Your task to perform on an android device: uninstall "Roku - Official Remote Control" Image 0: 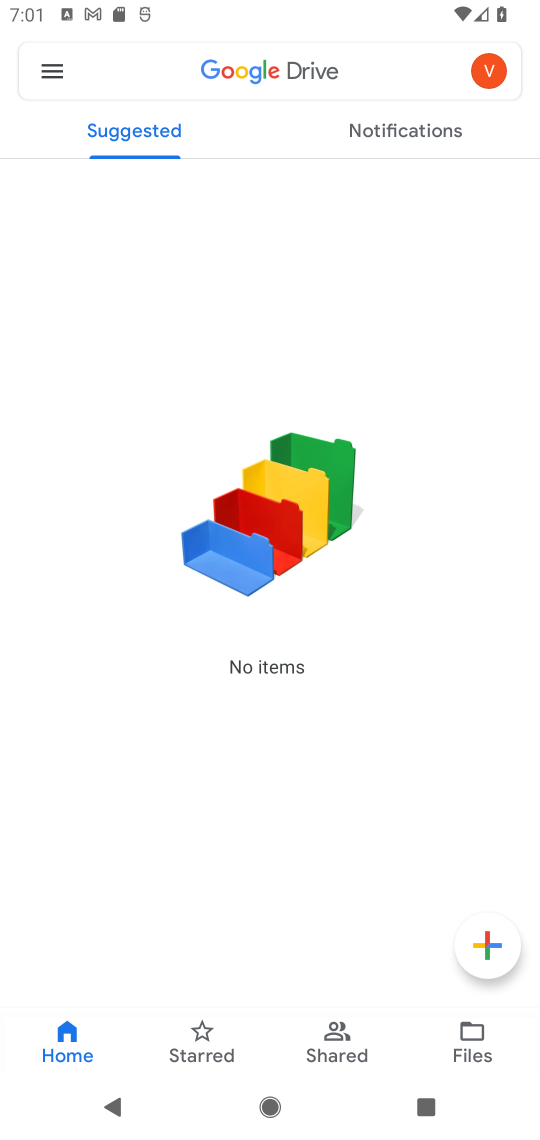
Step 0: press back button
Your task to perform on an android device: uninstall "Roku - Official Remote Control" Image 1: 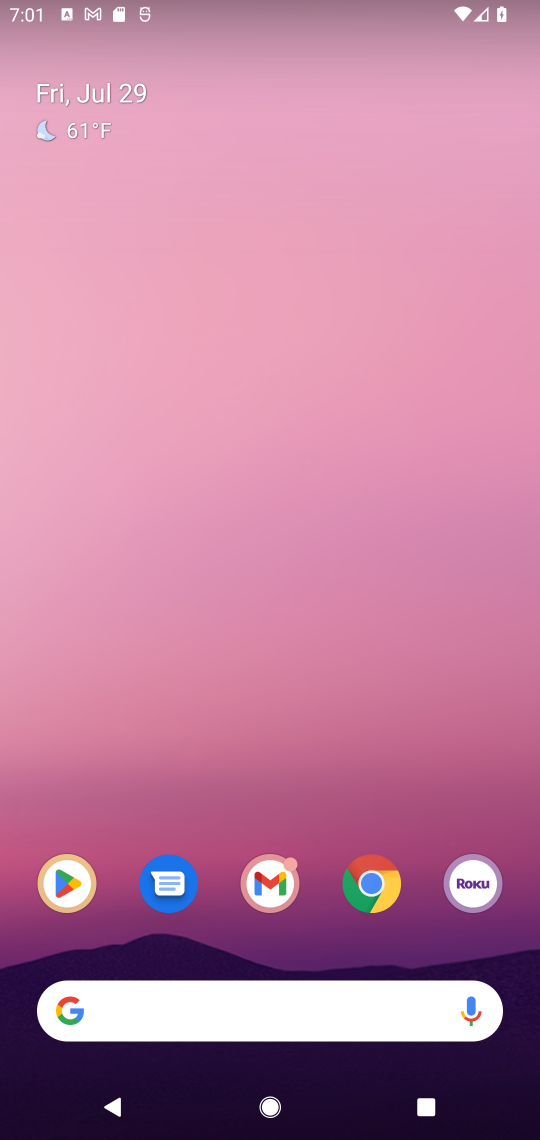
Step 1: click (60, 878)
Your task to perform on an android device: uninstall "Roku - Official Remote Control" Image 2: 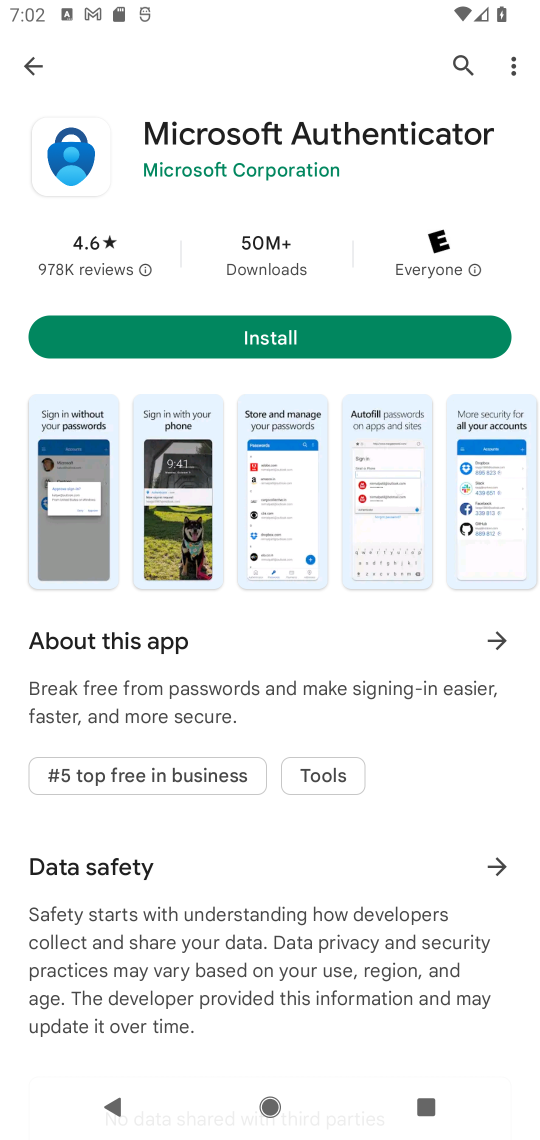
Step 2: click (473, 66)
Your task to perform on an android device: uninstall "Roku - Official Remote Control" Image 3: 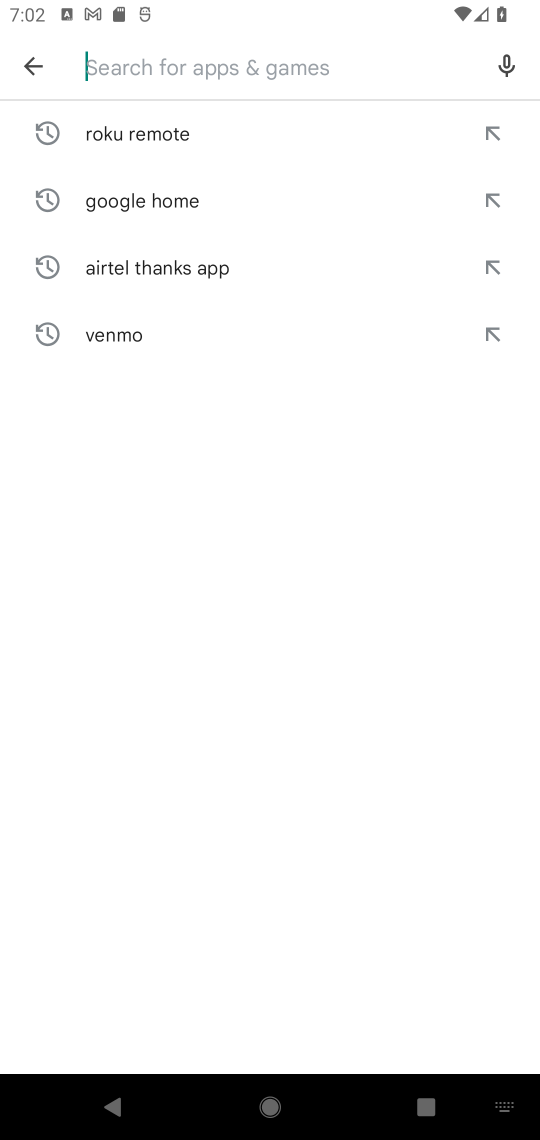
Step 3: click (162, 73)
Your task to perform on an android device: uninstall "Roku - Official Remote Control" Image 4: 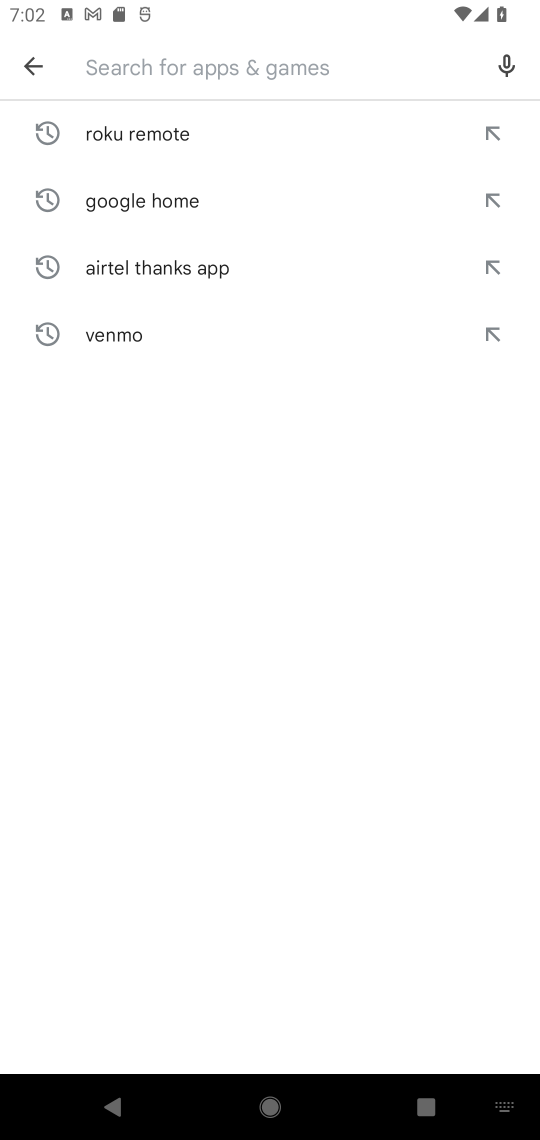
Step 4: type "roku"
Your task to perform on an android device: uninstall "Roku - Official Remote Control" Image 5: 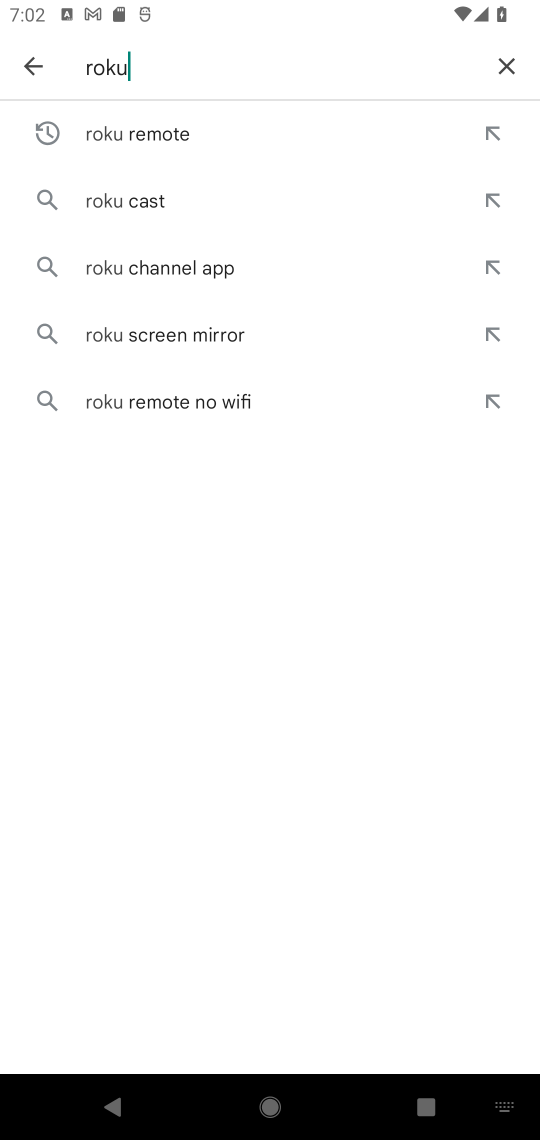
Step 5: click (154, 129)
Your task to perform on an android device: uninstall "Roku - Official Remote Control" Image 6: 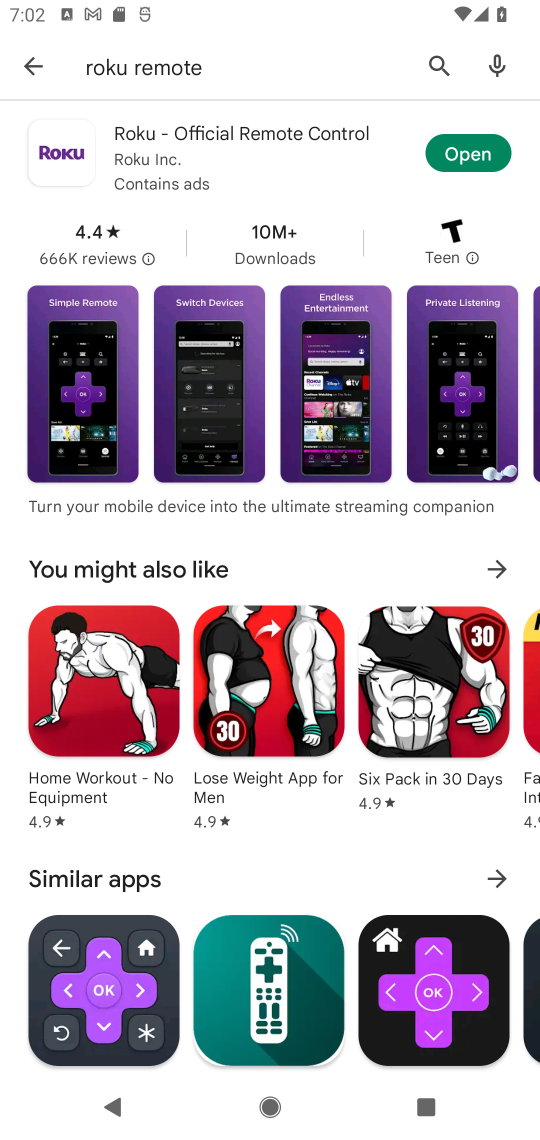
Step 6: click (185, 144)
Your task to perform on an android device: uninstall "Roku - Official Remote Control" Image 7: 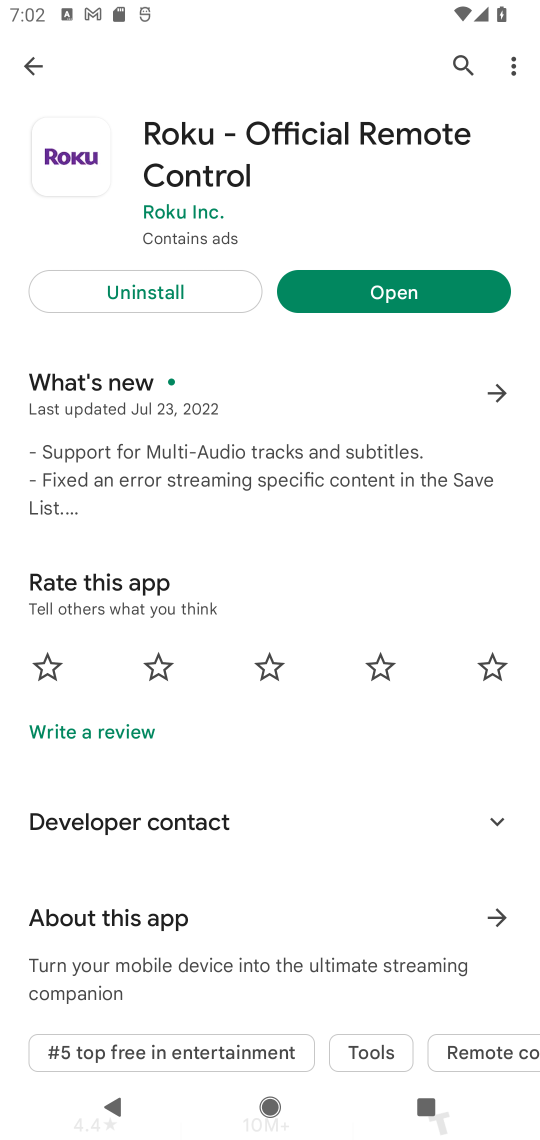
Step 7: click (125, 302)
Your task to perform on an android device: uninstall "Roku - Official Remote Control" Image 8: 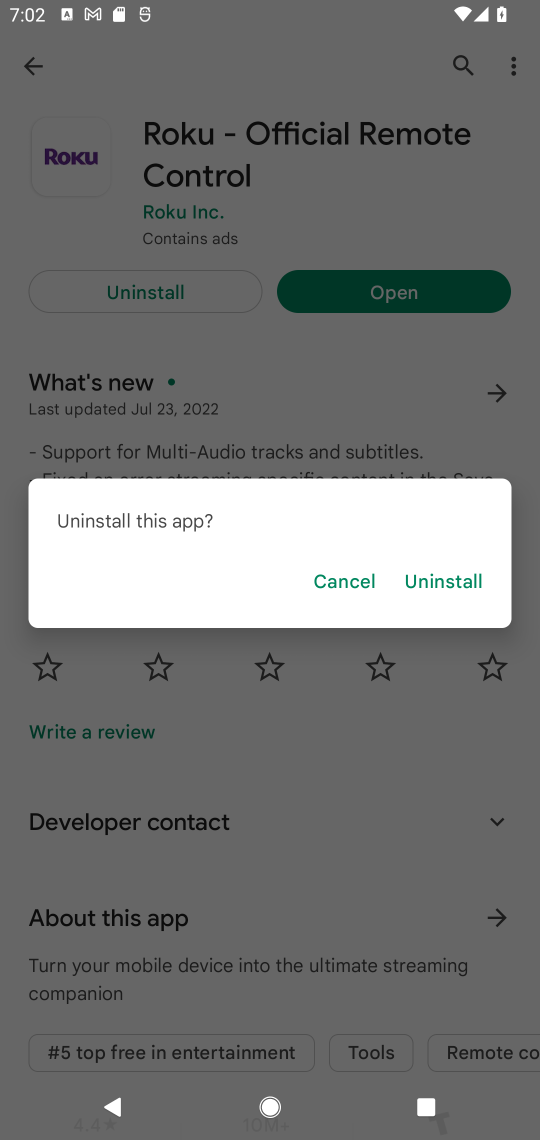
Step 8: click (459, 594)
Your task to perform on an android device: uninstall "Roku - Official Remote Control" Image 9: 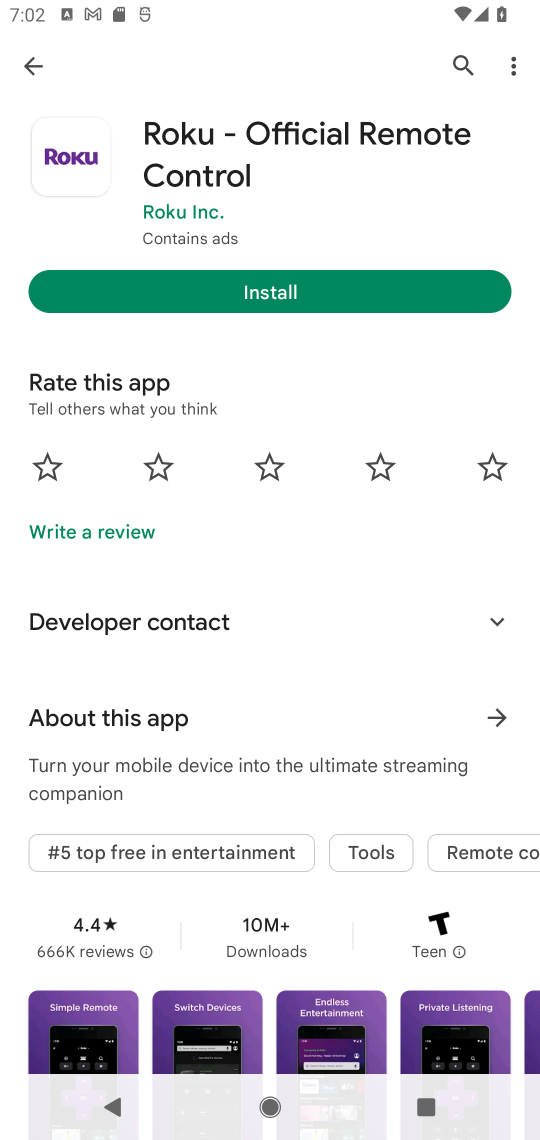
Step 9: task complete